Your task to perform on an android device: Open the stopwatch Image 0: 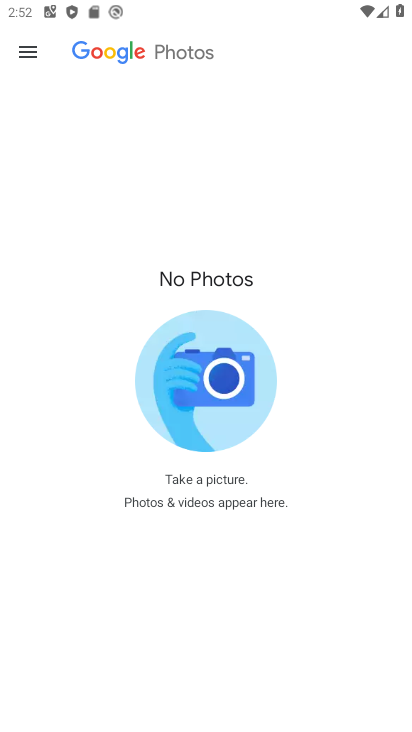
Step 0: press home button
Your task to perform on an android device: Open the stopwatch Image 1: 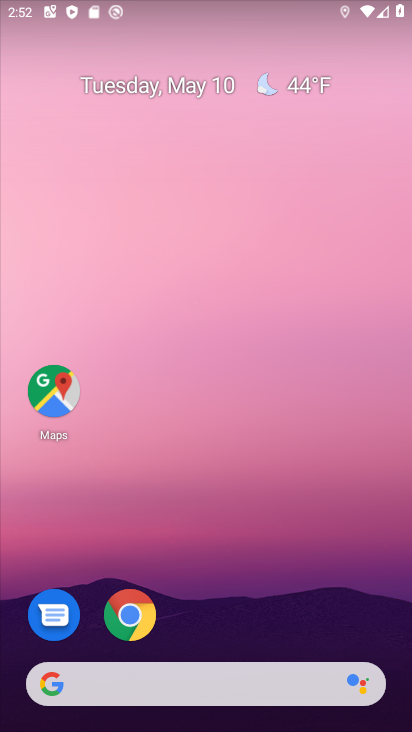
Step 1: drag from (210, 726) to (215, 225)
Your task to perform on an android device: Open the stopwatch Image 2: 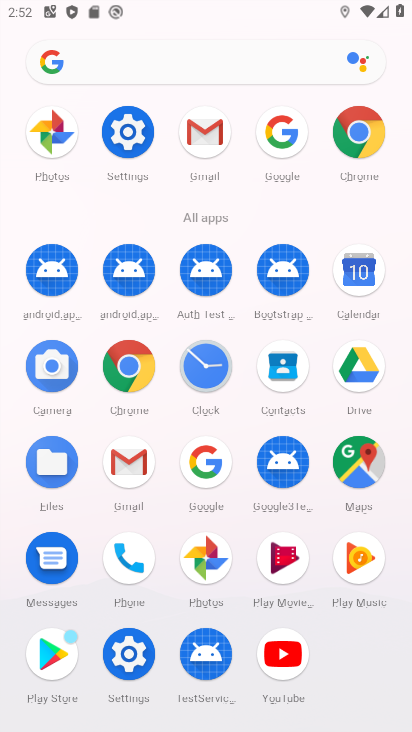
Step 2: click (196, 365)
Your task to perform on an android device: Open the stopwatch Image 3: 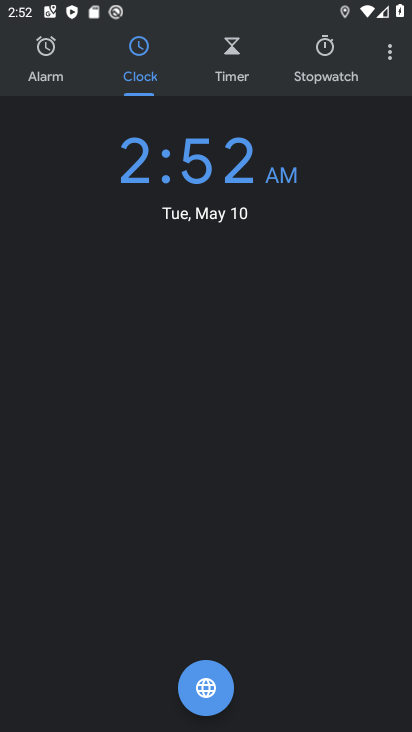
Step 3: click (325, 47)
Your task to perform on an android device: Open the stopwatch Image 4: 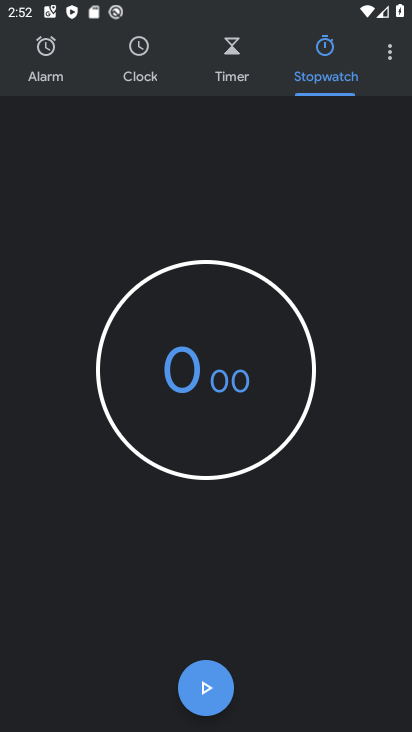
Step 4: task complete